Your task to perform on an android device: turn notification dots on Image 0: 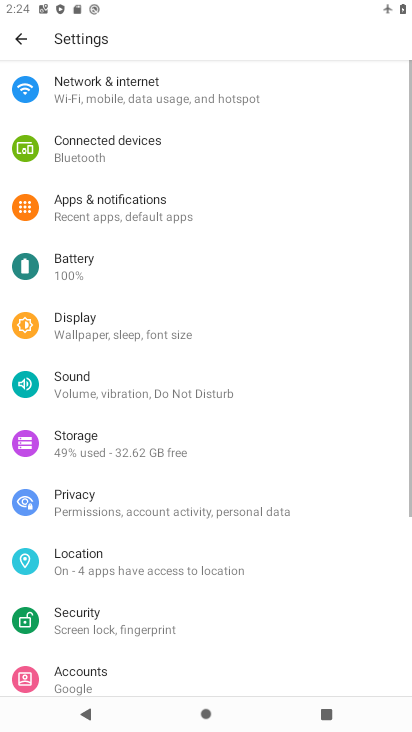
Step 0: drag from (156, 435) to (143, 80)
Your task to perform on an android device: turn notification dots on Image 1: 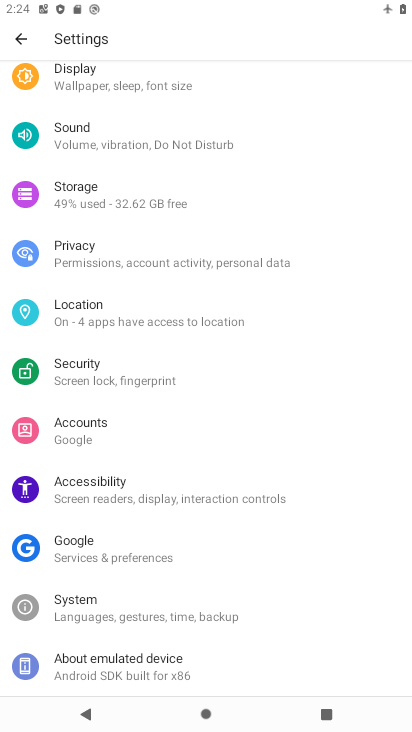
Step 1: drag from (138, 231) to (186, 622)
Your task to perform on an android device: turn notification dots on Image 2: 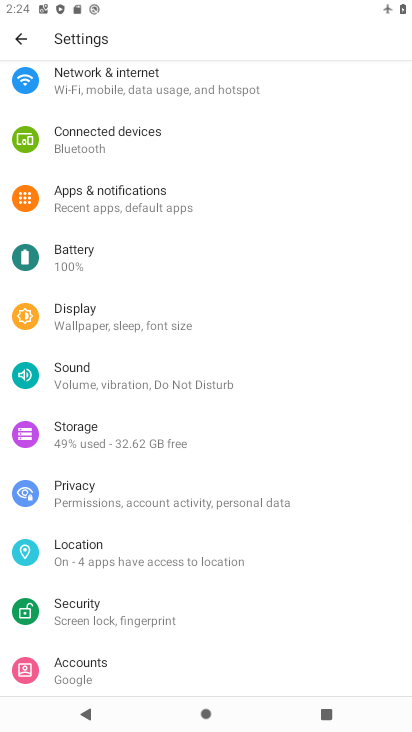
Step 2: click (145, 221)
Your task to perform on an android device: turn notification dots on Image 3: 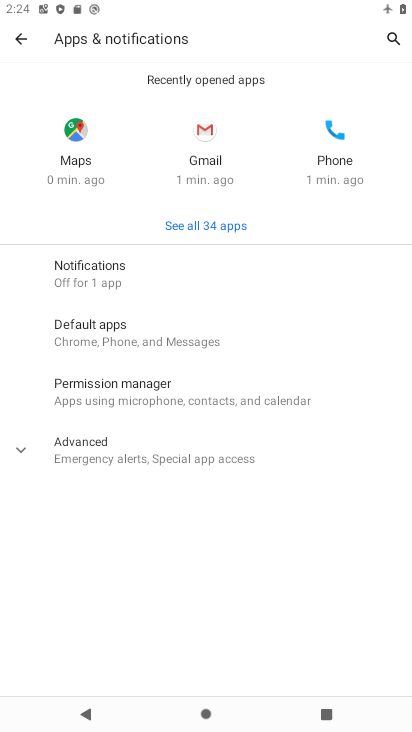
Step 3: click (92, 273)
Your task to perform on an android device: turn notification dots on Image 4: 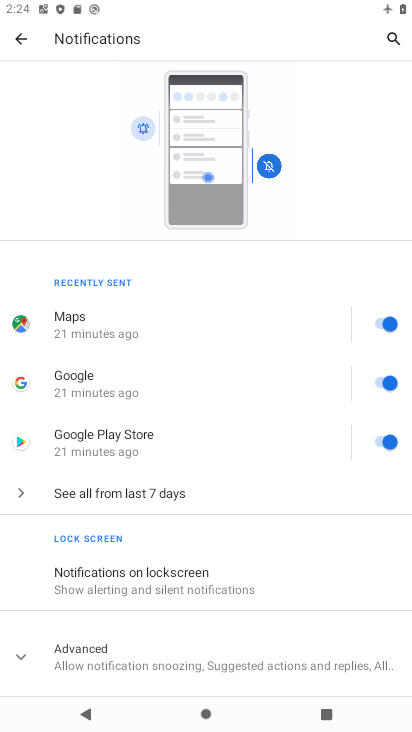
Step 4: drag from (155, 600) to (119, 132)
Your task to perform on an android device: turn notification dots on Image 5: 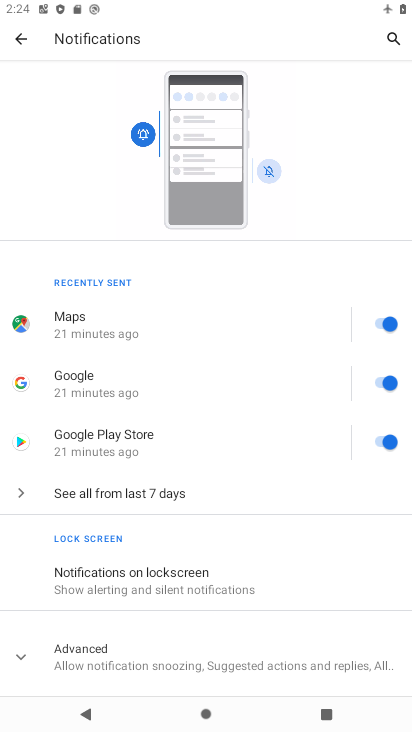
Step 5: click (147, 655)
Your task to perform on an android device: turn notification dots on Image 6: 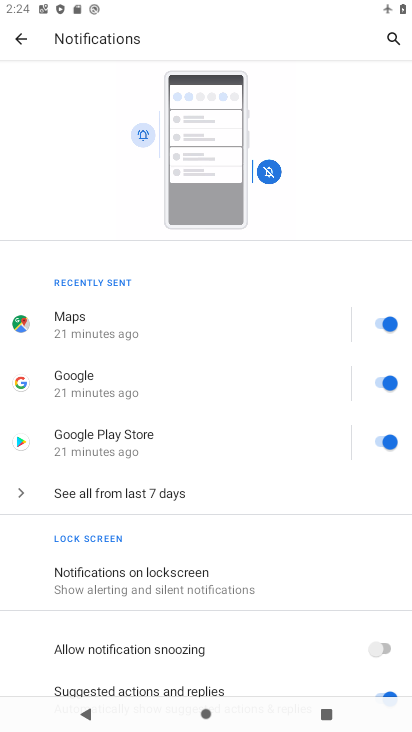
Step 6: task complete